Your task to perform on an android device: Is it going to rain today? Image 0: 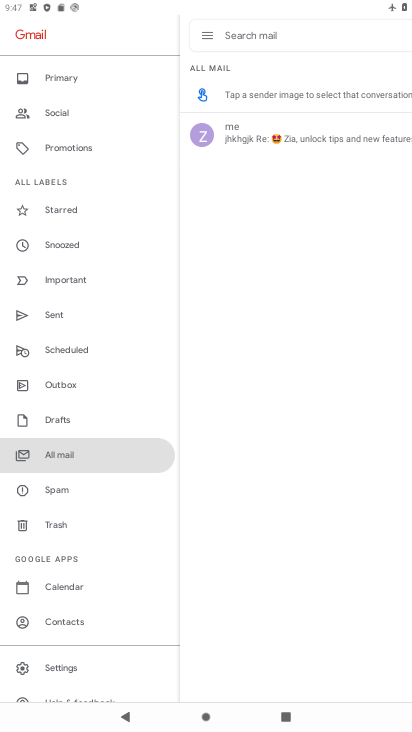
Step 0: press home button
Your task to perform on an android device: Is it going to rain today? Image 1: 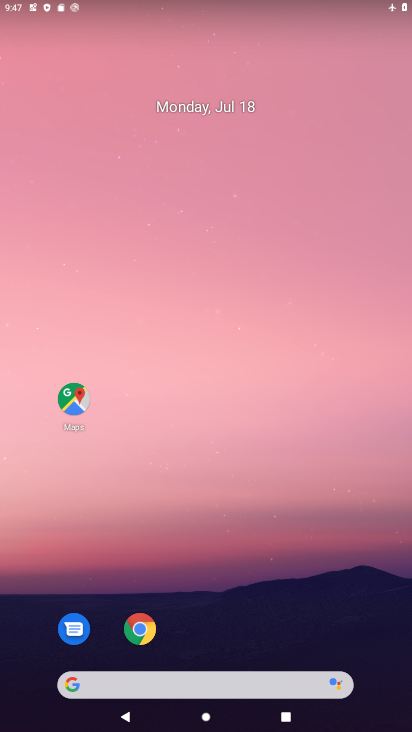
Step 1: drag from (310, 630) to (231, 48)
Your task to perform on an android device: Is it going to rain today? Image 2: 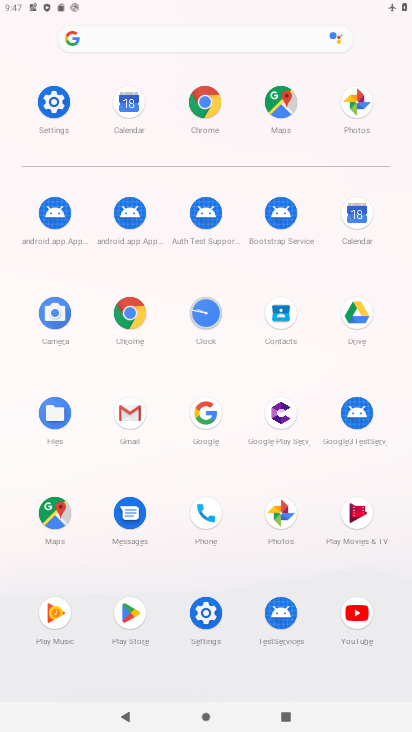
Step 2: click (201, 109)
Your task to perform on an android device: Is it going to rain today? Image 3: 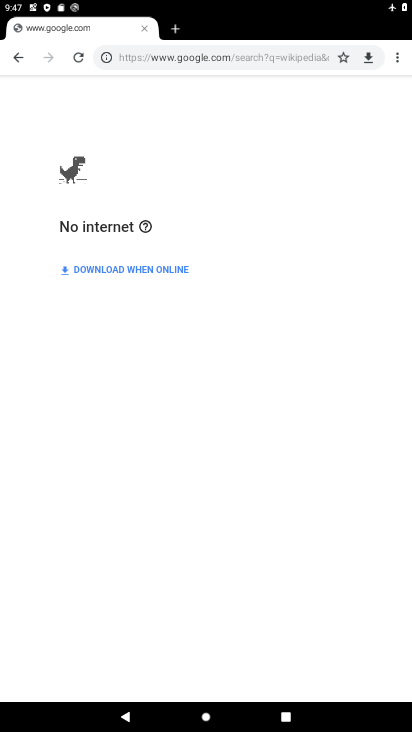
Step 3: click (184, 66)
Your task to perform on an android device: Is it going to rain today? Image 4: 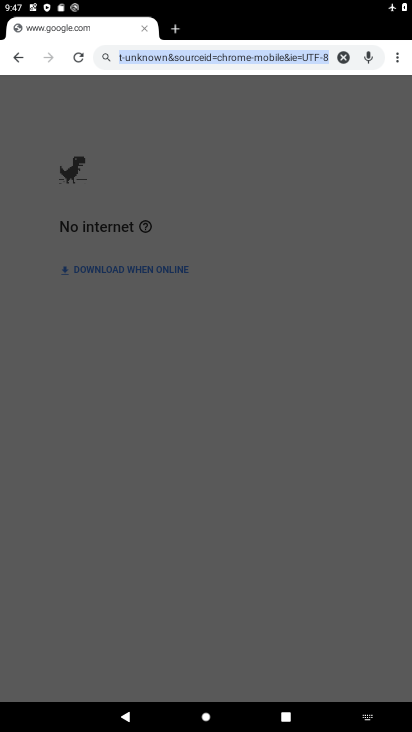
Step 4: type "weather"
Your task to perform on an android device: Is it going to rain today? Image 5: 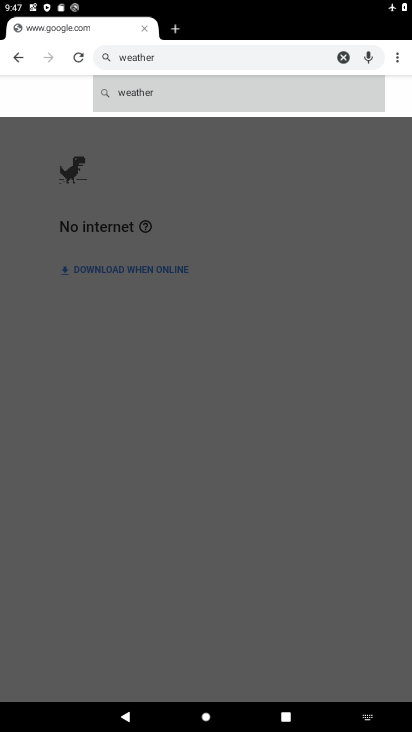
Step 5: click (128, 89)
Your task to perform on an android device: Is it going to rain today? Image 6: 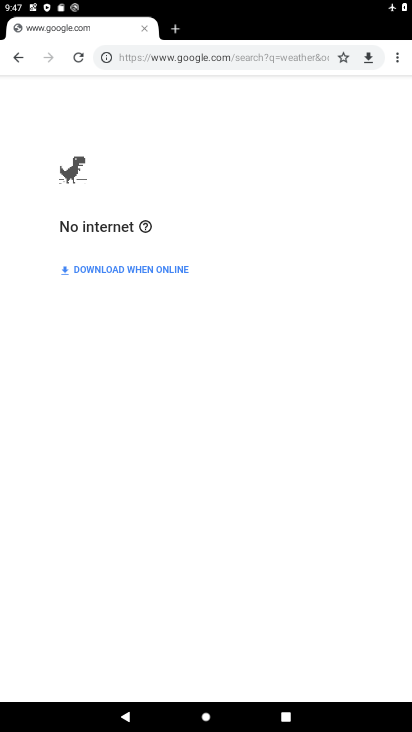
Step 6: task complete